Your task to perform on an android device: Do I have any events tomorrow? Image 0: 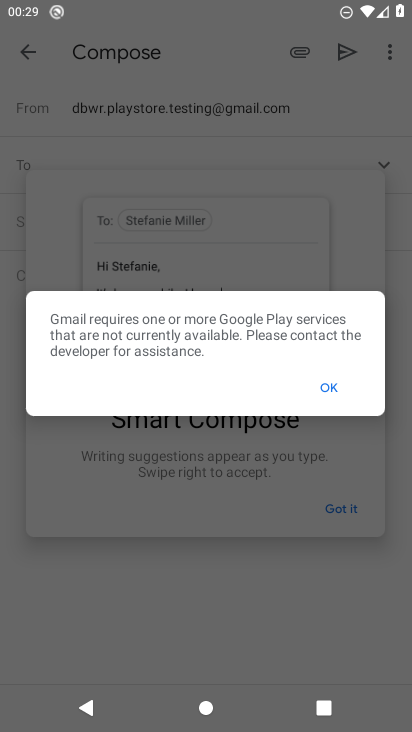
Step 0: press home button
Your task to perform on an android device: Do I have any events tomorrow? Image 1: 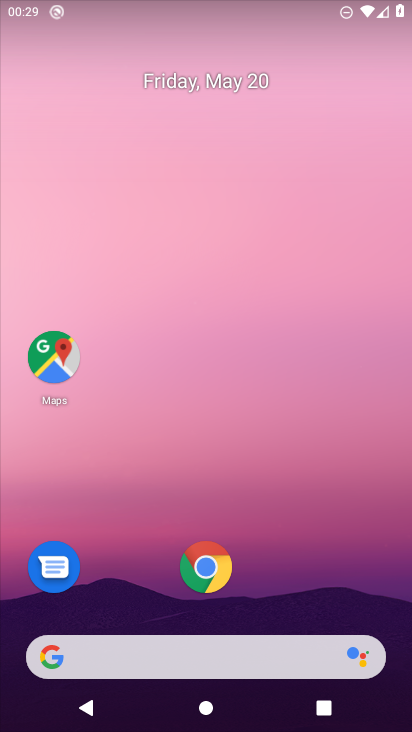
Step 1: drag from (259, 622) to (302, 8)
Your task to perform on an android device: Do I have any events tomorrow? Image 2: 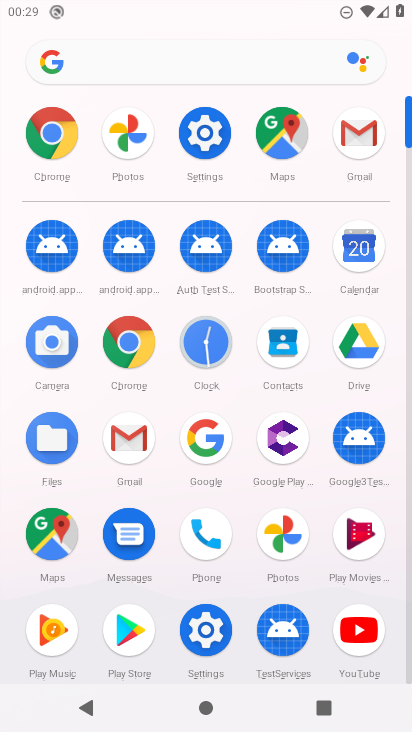
Step 2: click (364, 242)
Your task to perform on an android device: Do I have any events tomorrow? Image 3: 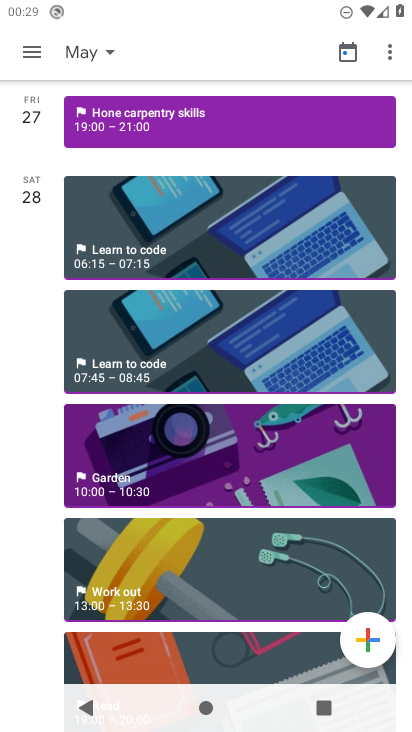
Step 3: drag from (30, 140) to (31, 670)
Your task to perform on an android device: Do I have any events tomorrow? Image 4: 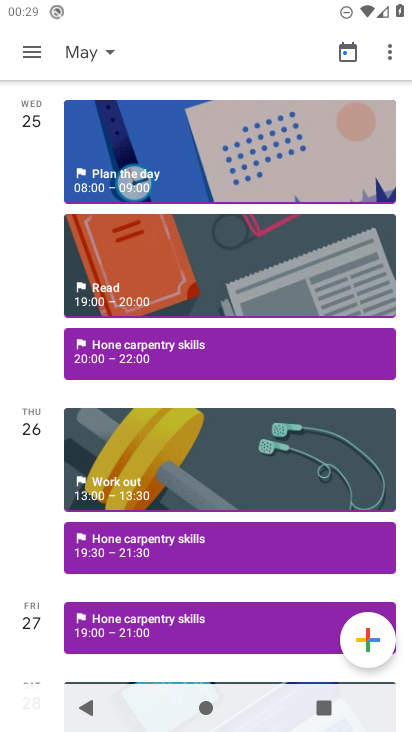
Step 4: drag from (28, 159) to (37, 597)
Your task to perform on an android device: Do I have any events tomorrow? Image 5: 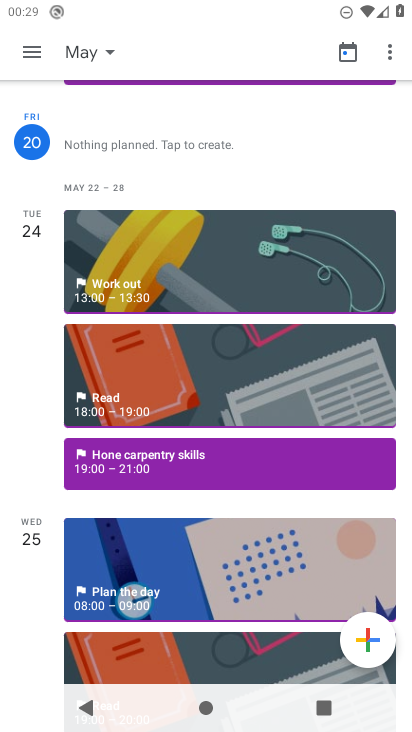
Step 5: click (33, 147)
Your task to perform on an android device: Do I have any events tomorrow? Image 6: 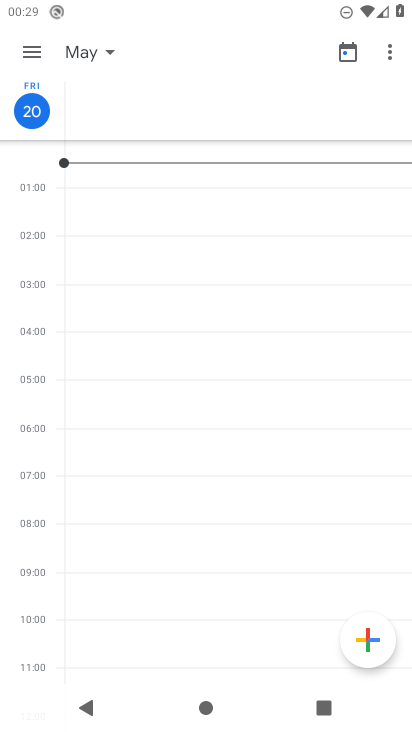
Step 6: click (104, 50)
Your task to perform on an android device: Do I have any events tomorrow? Image 7: 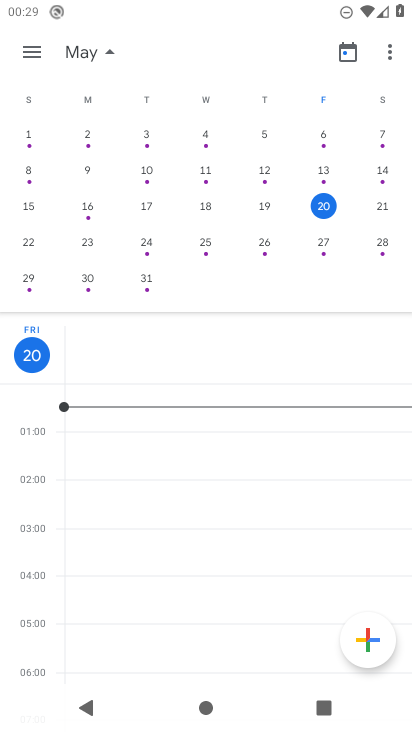
Step 7: click (385, 201)
Your task to perform on an android device: Do I have any events tomorrow? Image 8: 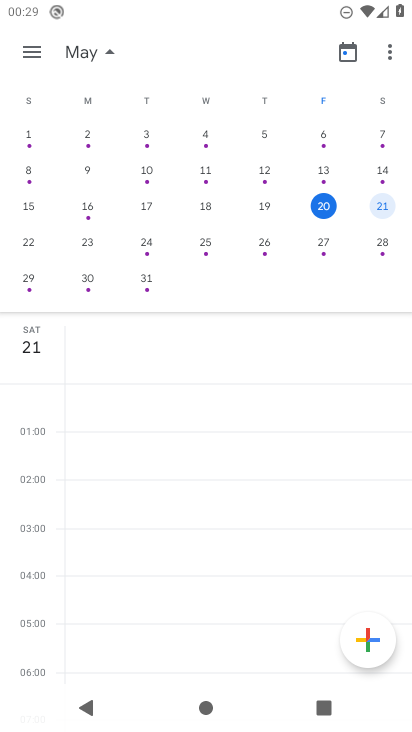
Step 8: task complete